Your task to perform on an android device: turn on sleep mode Image 0: 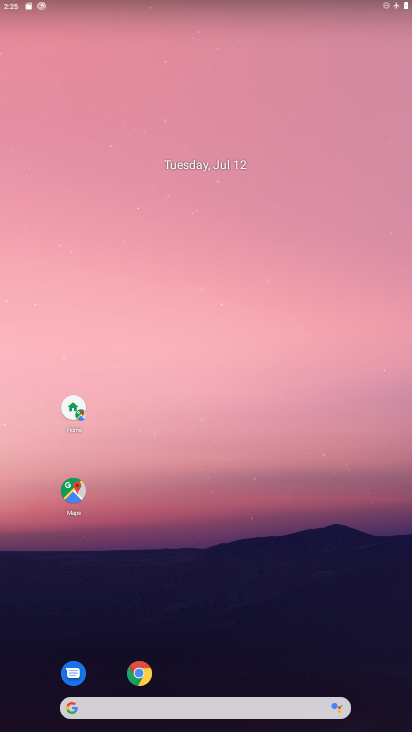
Step 0: drag from (261, 658) to (261, 175)
Your task to perform on an android device: turn on sleep mode Image 1: 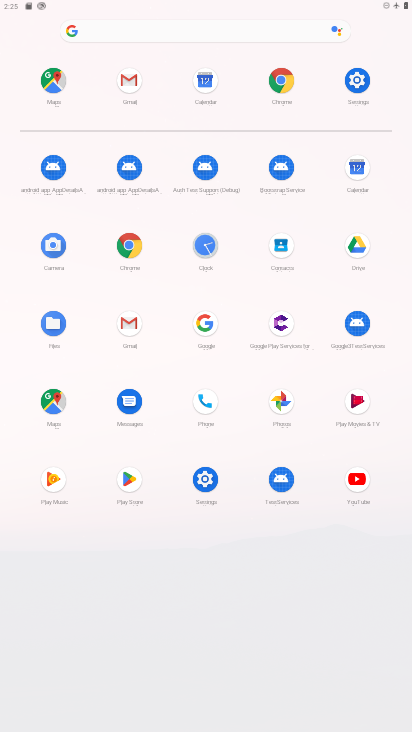
Step 1: click (341, 79)
Your task to perform on an android device: turn on sleep mode Image 2: 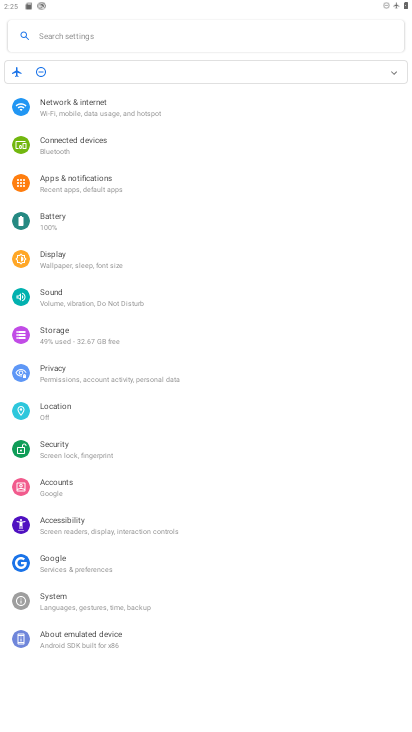
Step 2: task complete